Your task to perform on an android device: toggle show notifications on the lock screen Image 0: 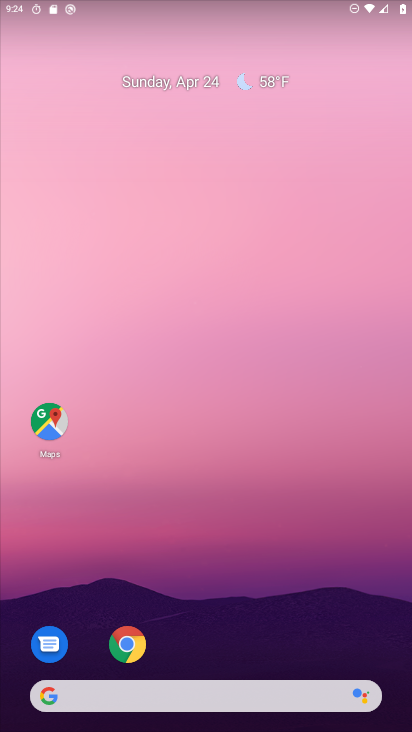
Step 0: drag from (199, 645) to (221, 155)
Your task to perform on an android device: toggle show notifications on the lock screen Image 1: 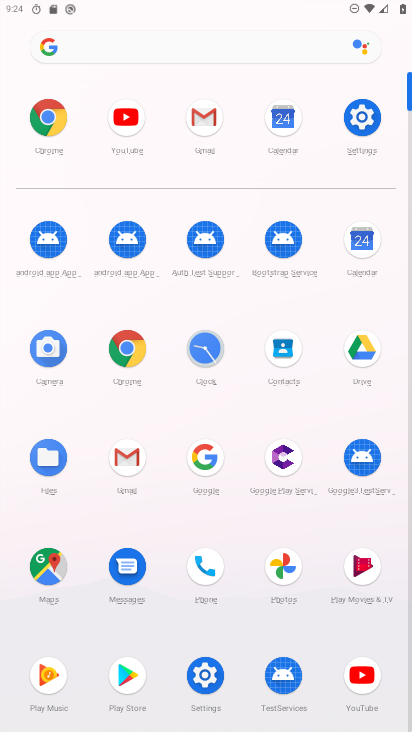
Step 1: click (366, 113)
Your task to perform on an android device: toggle show notifications on the lock screen Image 2: 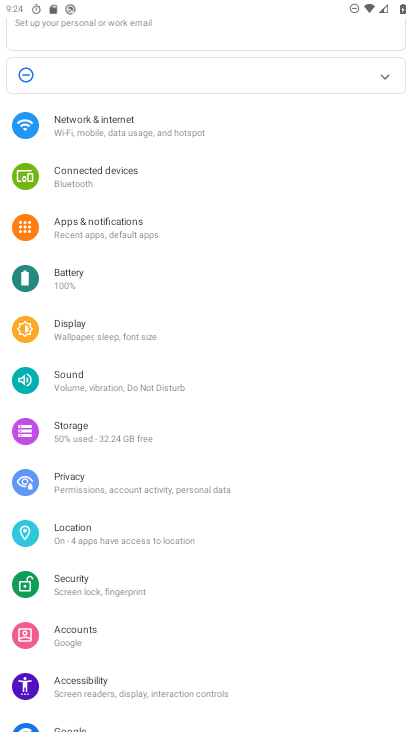
Step 2: click (114, 224)
Your task to perform on an android device: toggle show notifications on the lock screen Image 3: 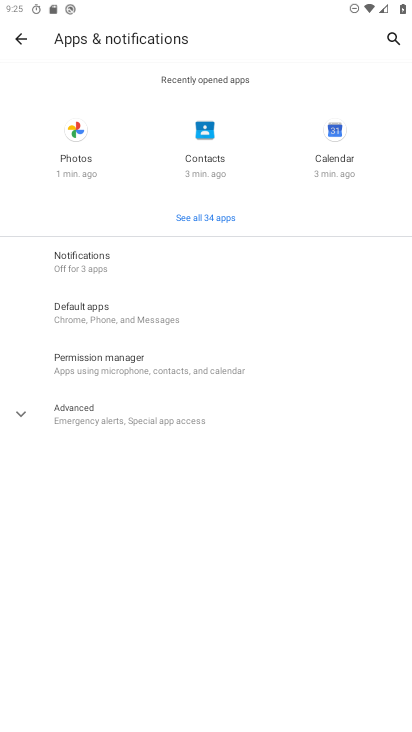
Step 3: click (91, 269)
Your task to perform on an android device: toggle show notifications on the lock screen Image 4: 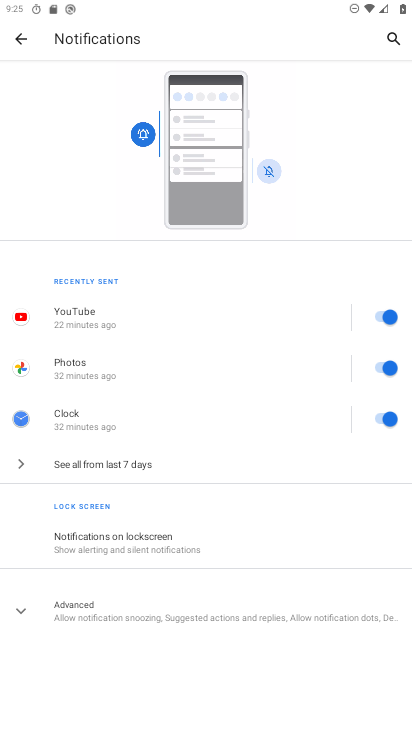
Step 4: click (186, 538)
Your task to perform on an android device: toggle show notifications on the lock screen Image 5: 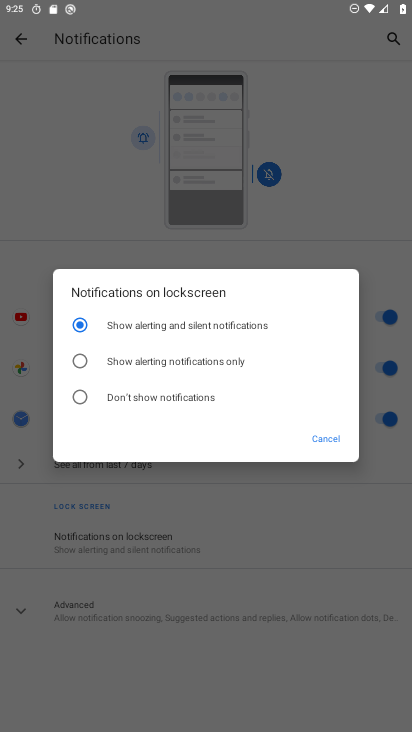
Step 5: click (77, 361)
Your task to perform on an android device: toggle show notifications on the lock screen Image 6: 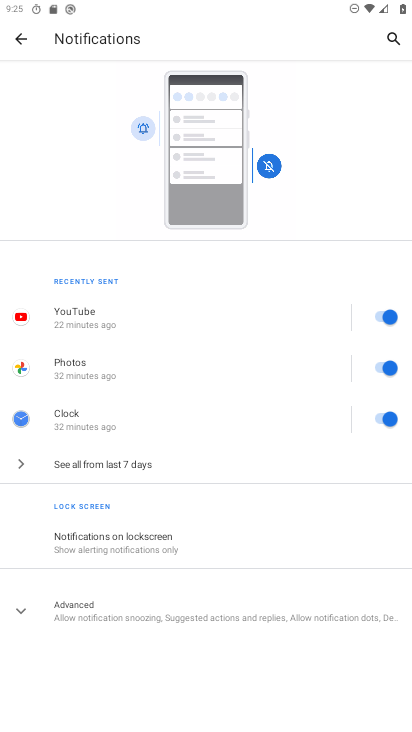
Step 6: task complete